Your task to perform on an android device: toggle notifications settings in the gmail app Image 0: 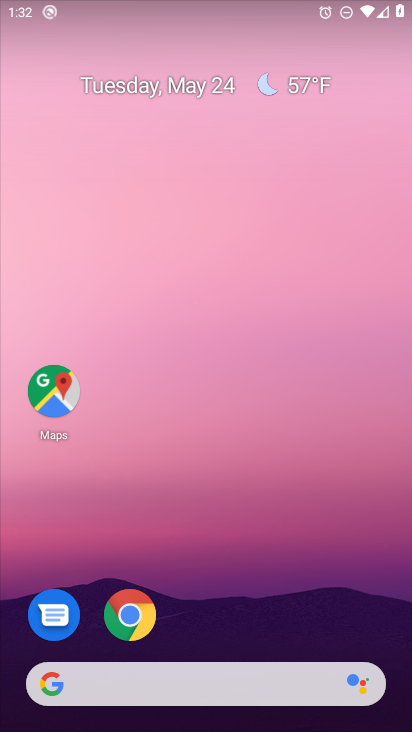
Step 0: drag from (213, 664) to (194, 198)
Your task to perform on an android device: toggle notifications settings in the gmail app Image 1: 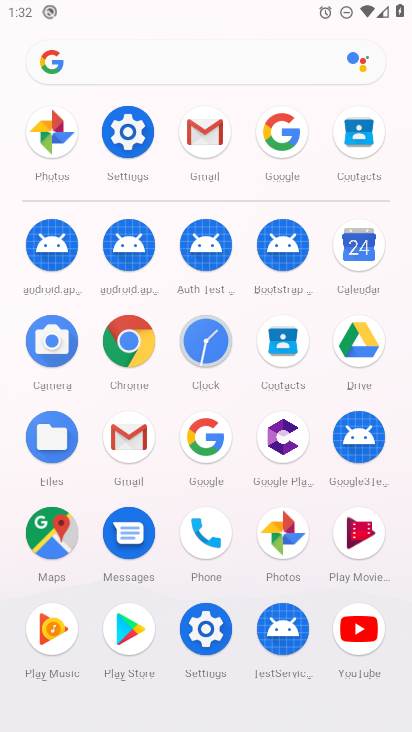
Step 1: click (108, 435)
Your task to perform on an android device: toggle notifications settings in the gmail app Image 2: 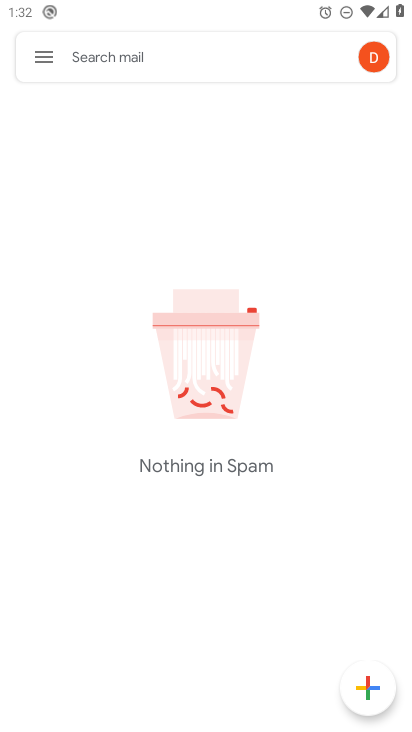
Step 2: click (38, 55)
Your task to perform on an android device: toggle notifications settings in the gmail app Image 3: 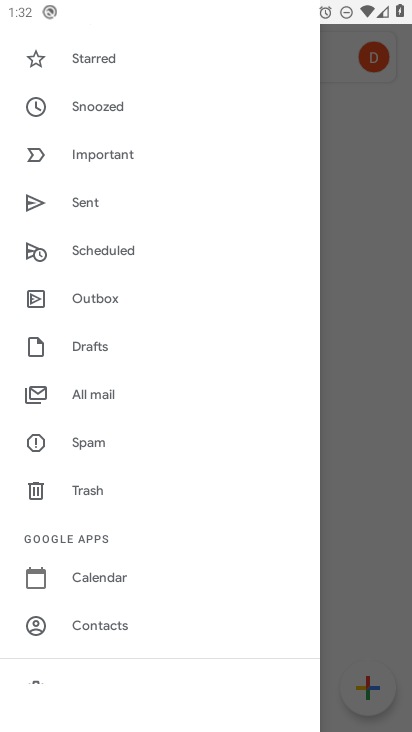
Step 3: drag from (102, 661) to (111, 263)
Your task to perform on an android device: toggle notifications settings in the gmail app Image 4: 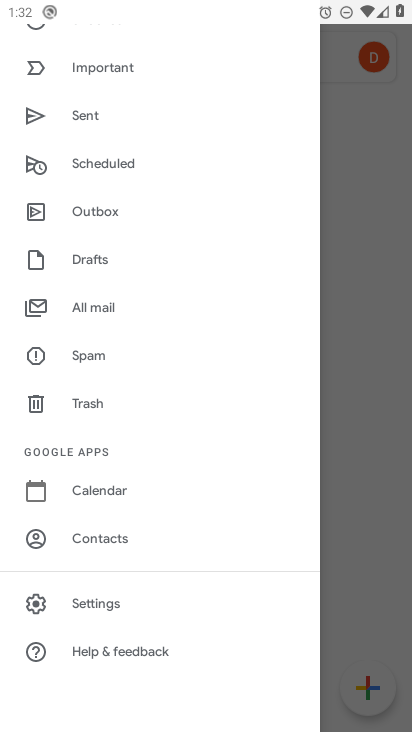
Step 4: click (91, 611)
Your task to perform on an android device: toggle notifications settings in the gmail app Image 5: 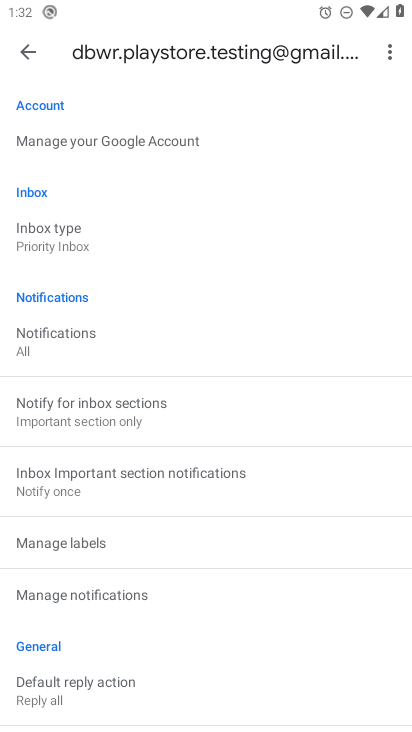
Step 5: click (23, 61)
Your task to perform on an android device: toggle notifications settings in the gmail app Image 6: 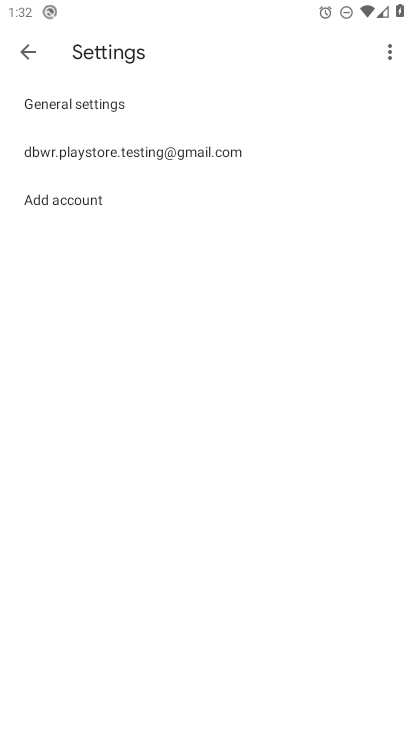
Step 6: click (105, 102)
Your task to perform on an android device: toggle notifications settings in the gmail app Image 7: 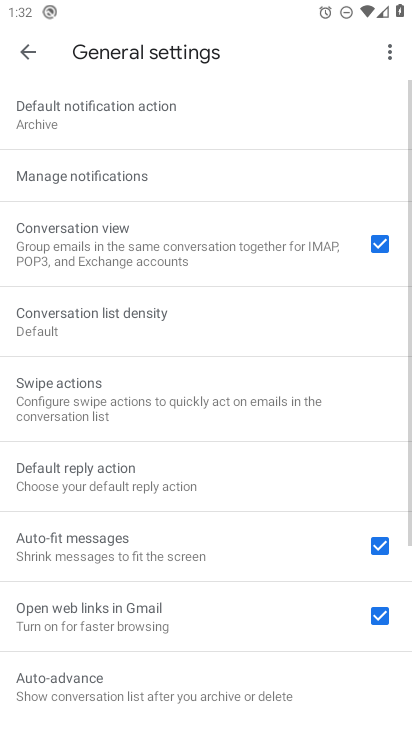
Step 7: click (56, 165)
Your task to perform on an android device: toggle notifications settings in the gmail app Image 8: 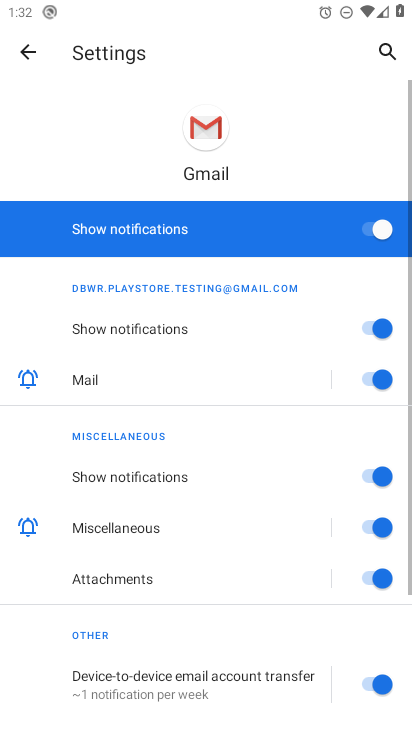
Step 8: click (375, 229)
Your task to perform on an android device: toggle notifications settings in the gmail app Image 9: 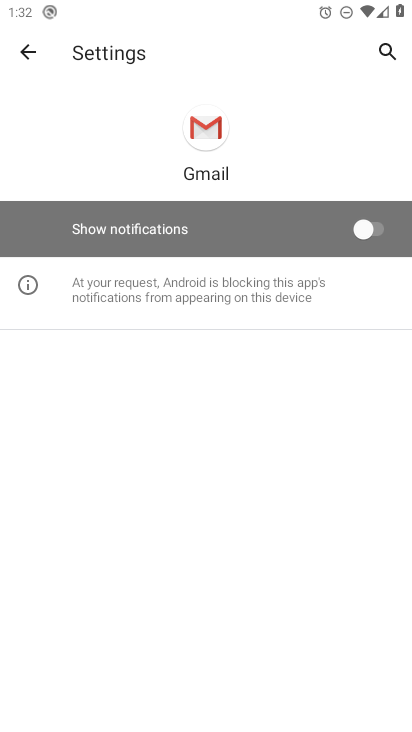
Step 9: task complete